Your task to perform on an android device: Open calendar and show me the third week of next month Image 0: 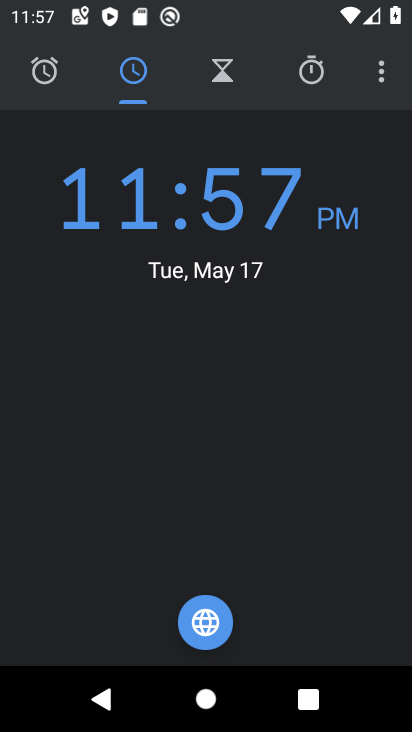
Step 0: press home button
Your task to perform on an android device: Open calendar and show me the third week of next month Image 1: 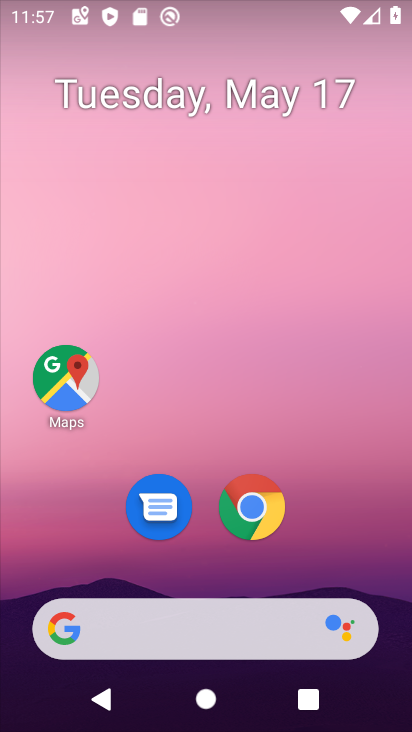
Step 1: drag from (335, 568) to (352, 169)
Your task to perform on an android device: Open calendar and show me the third week of next month Image 2: 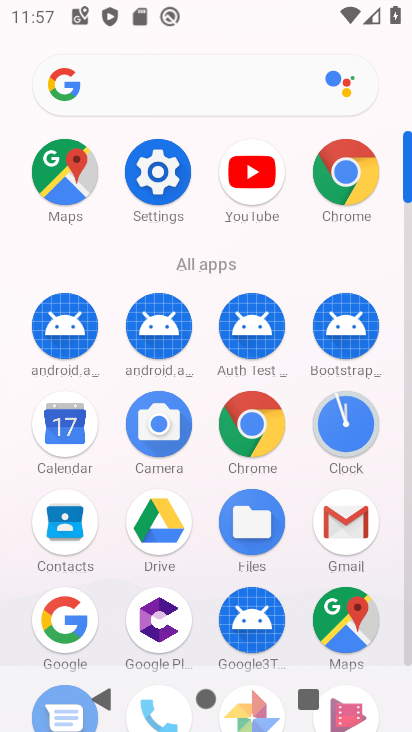
Step 2: click (63, 420)
Your task to perform on an android device: Open calendar and show me the third week of next month Image 3: 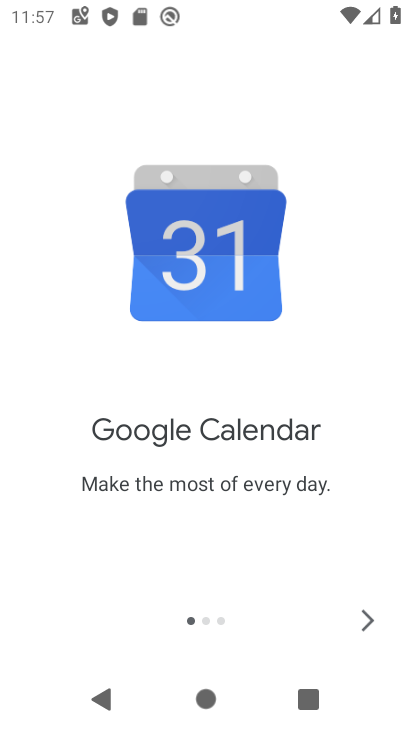
Step 3: click (366, 610)
Your task to perform on an android device: Open calendar and show me the third week of next month Image 4: 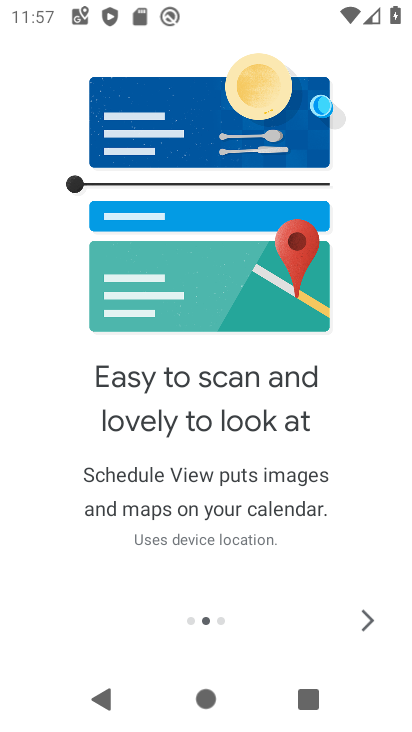
Step 4: click (366, 610)
Your task to perform on an android device: Open calendar and show me the third week of next month Image 5: 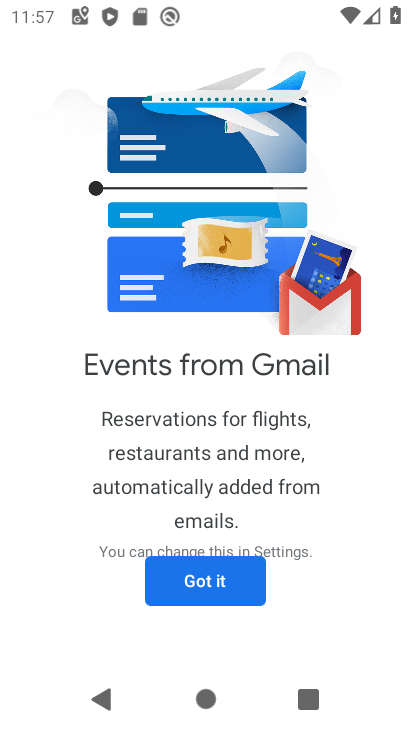
Step 5: click (366, 610)
Your task to perform on an android device: Open calendar and show me the third week of next month Image 6: 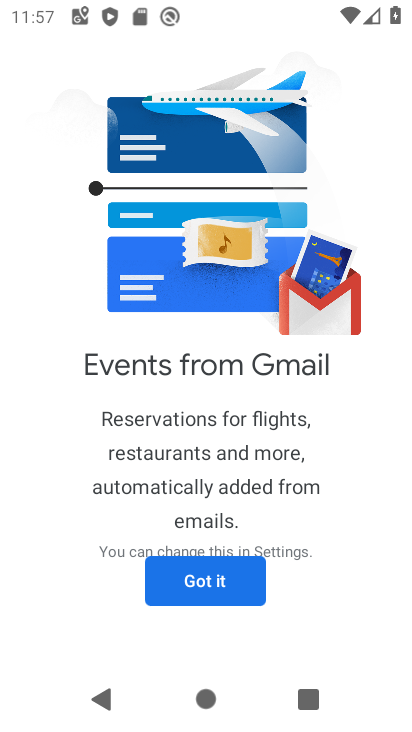
Step 6: click (209, 578)
Your task to perform on an android device: Open calendar and show me the third week of next month Image 7: 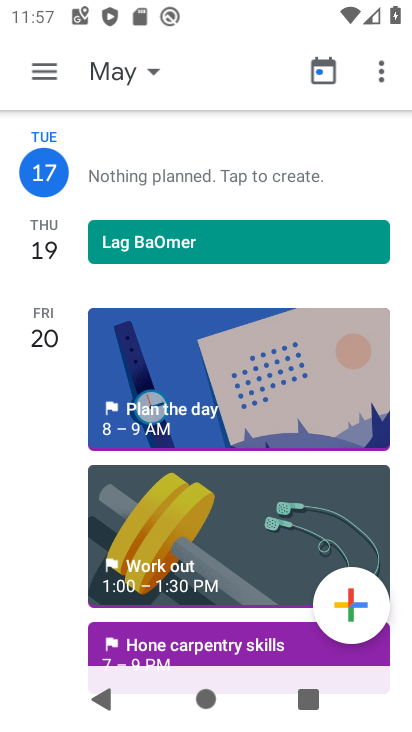
Step 7: click (40, 69)
Your task to perform on an android device: Open calendar and show me the third week of next month Image 8: 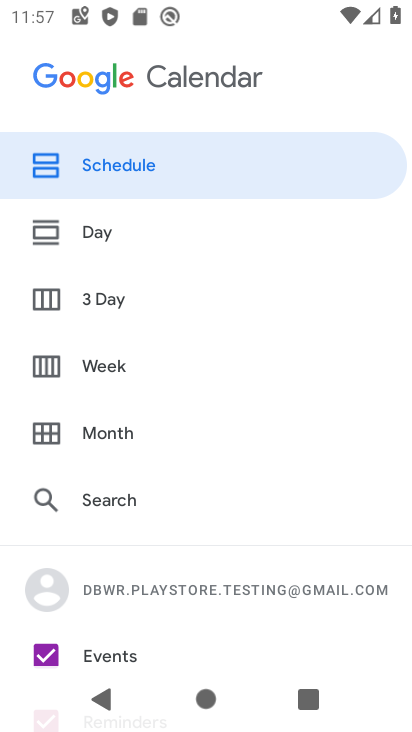
Step 8: click (116, 373)
Your task to perform on an android device: Open calendar and show me the third week of next month Image 9: 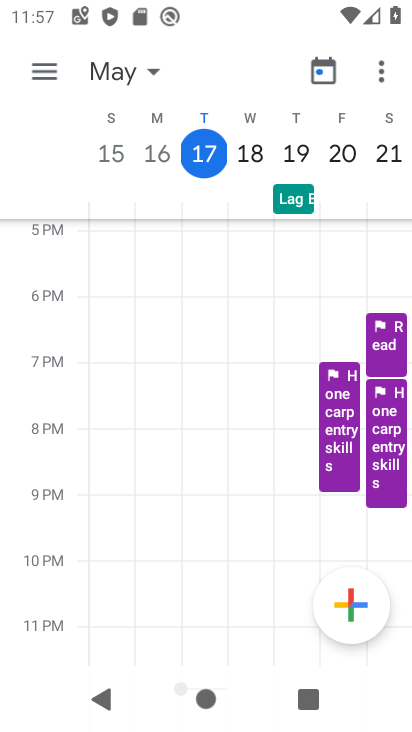
Step 9: drag from (375, 406) to (229, 394)
Your task to perform on an android device: Open calendar and show me the third week of next month Image 10: 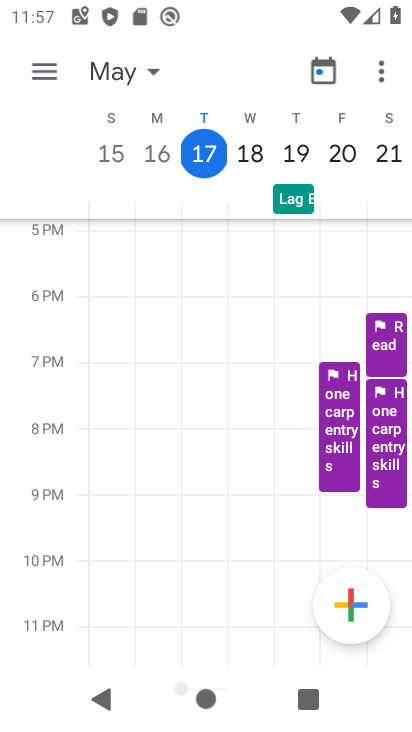
Step 10: click (36, 65)
Your task to perform on an android device: Open calendar and show me the third week of next month Image 11: 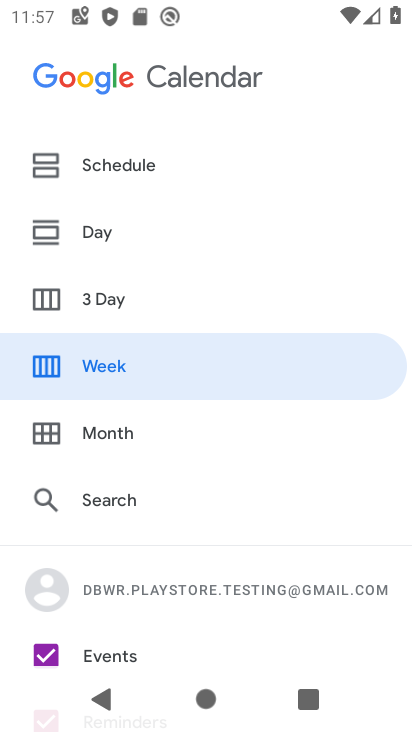
Step 11: click (106, 434)
Your task to perform on an android device: Open calendar and show me the third week of next month Image 12: 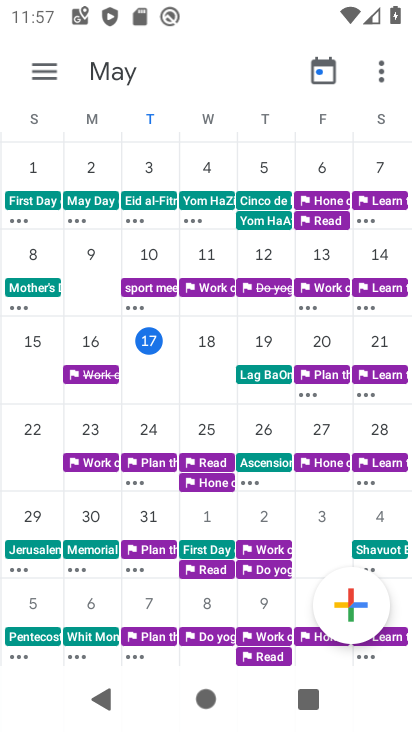
Step 12: task complete